Your task to perform on an android device: turn off improve location accuracy Image 0: 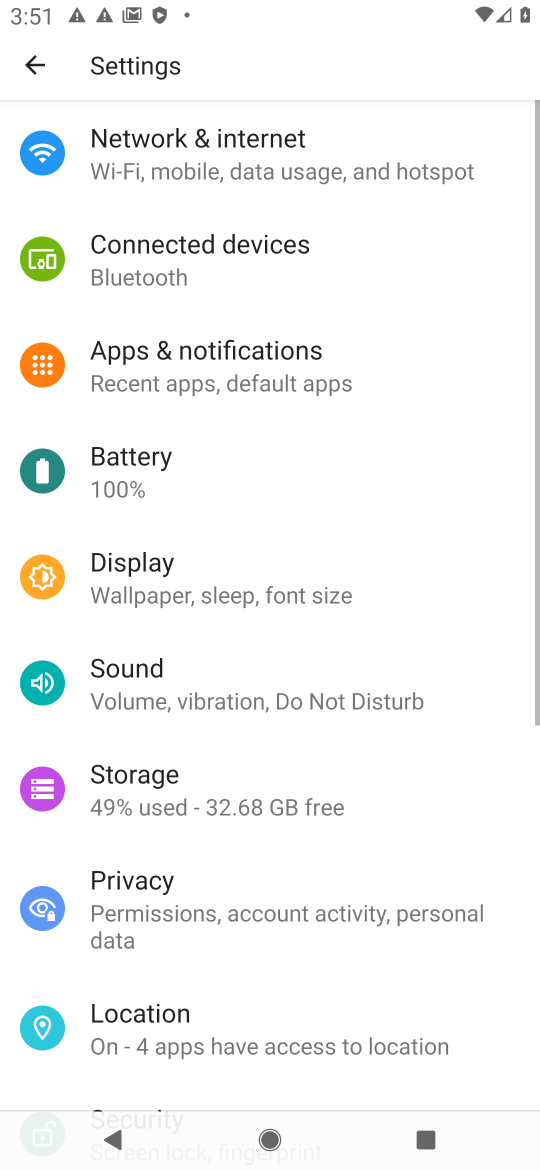
Step 0: click (149, 1019)
Your task to perform on an android device: turn off improve location accuracy Image 1: 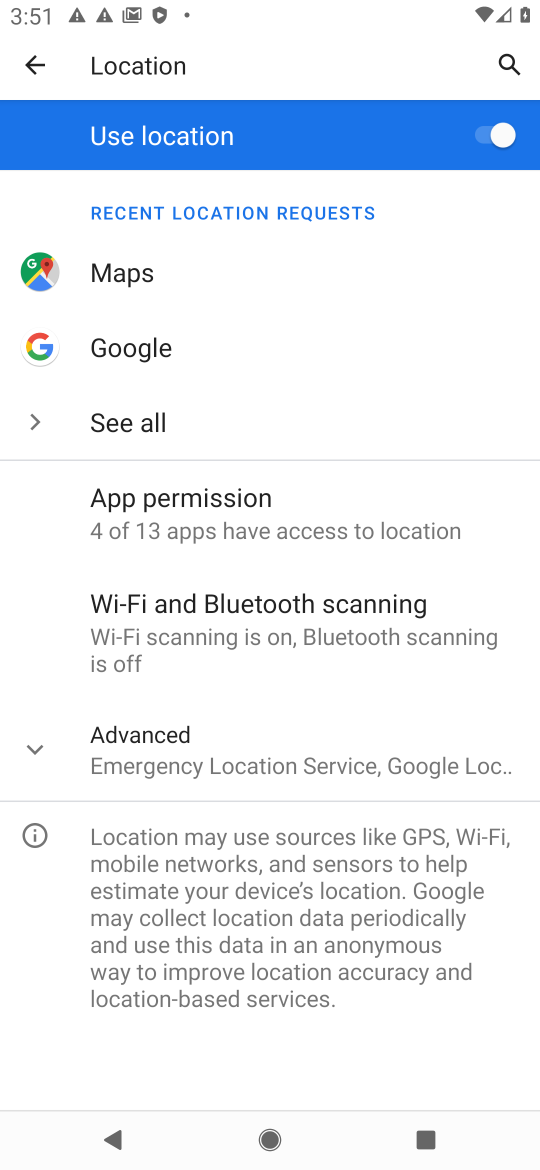
Step 1: click (153, 742)
Your task to perform on an android device: turn off improve location accuracy Image 2: 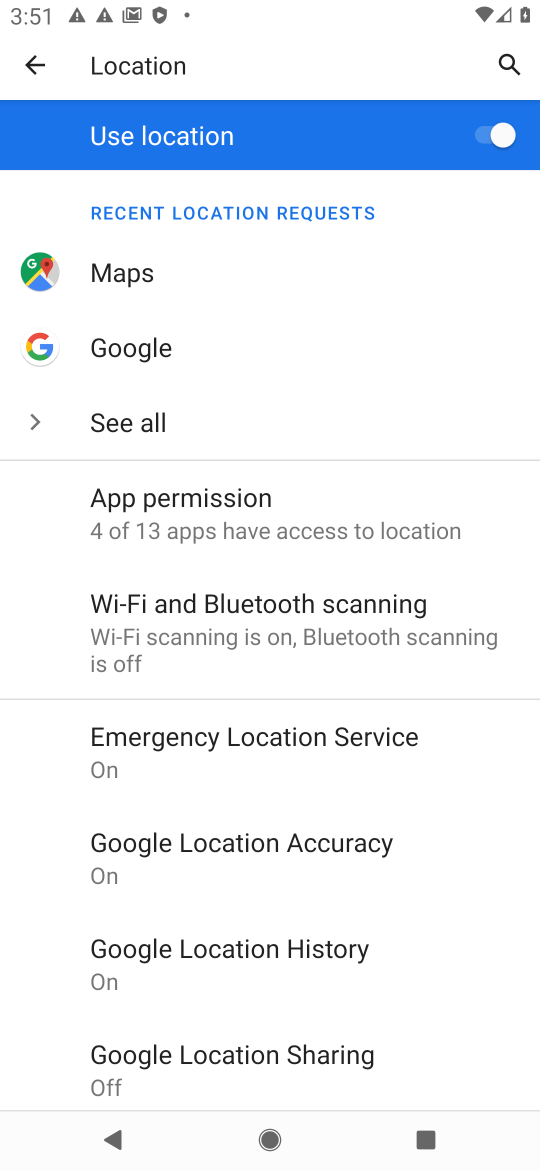
Step 2: click (221, 847)
Your task to perform on an android device: turn off improve location accuracy Image 3: 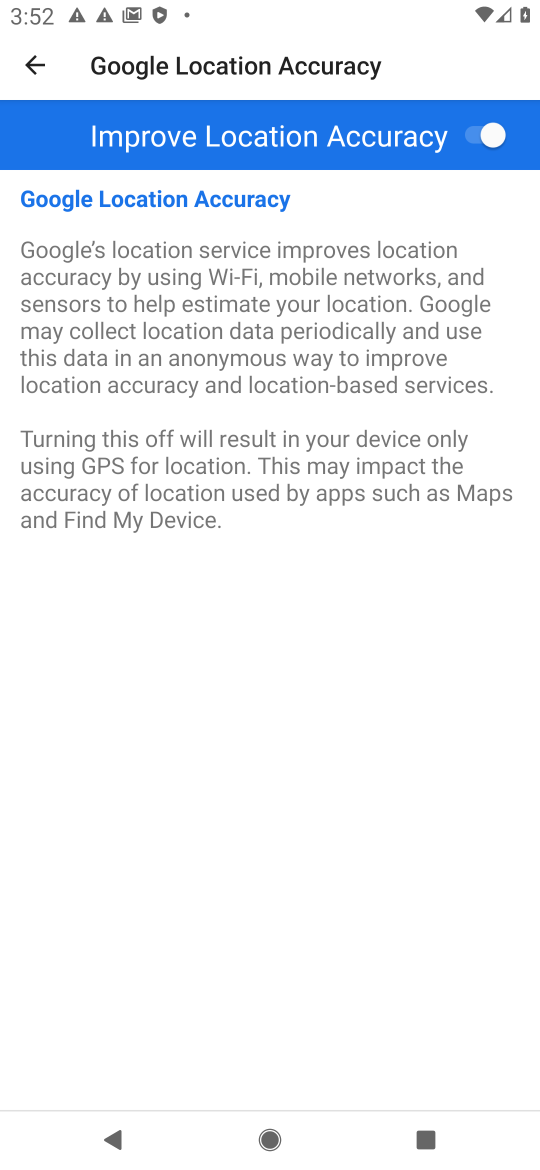
Step 3: click (481, 129)
Your task to perform on an android device: turn off improve location accuracy Image 4: 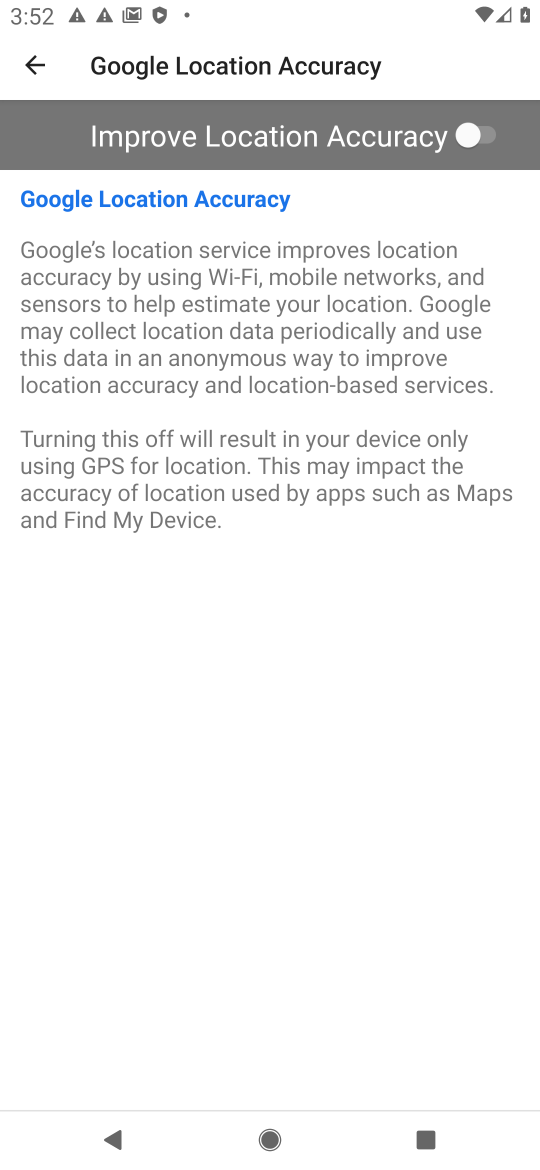
Step 4: task complete